Your task to perform on an android device: uninstall "eBay: The shopping marketplace" Image 0: 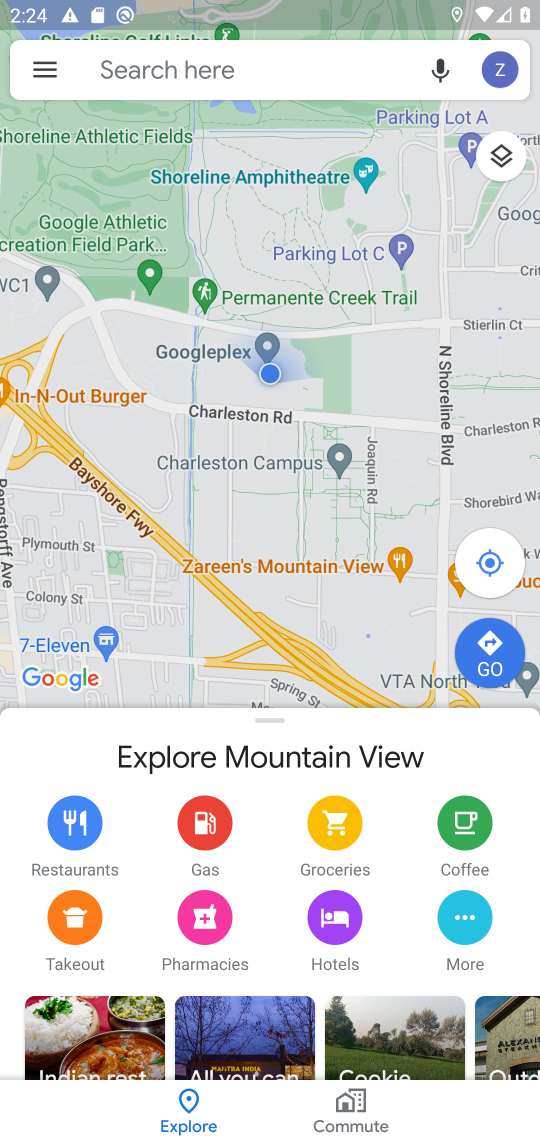
Step 0: press home button
Your task to perform on an android device: uninstall "eBay: The shopping marketplace" Image 1: 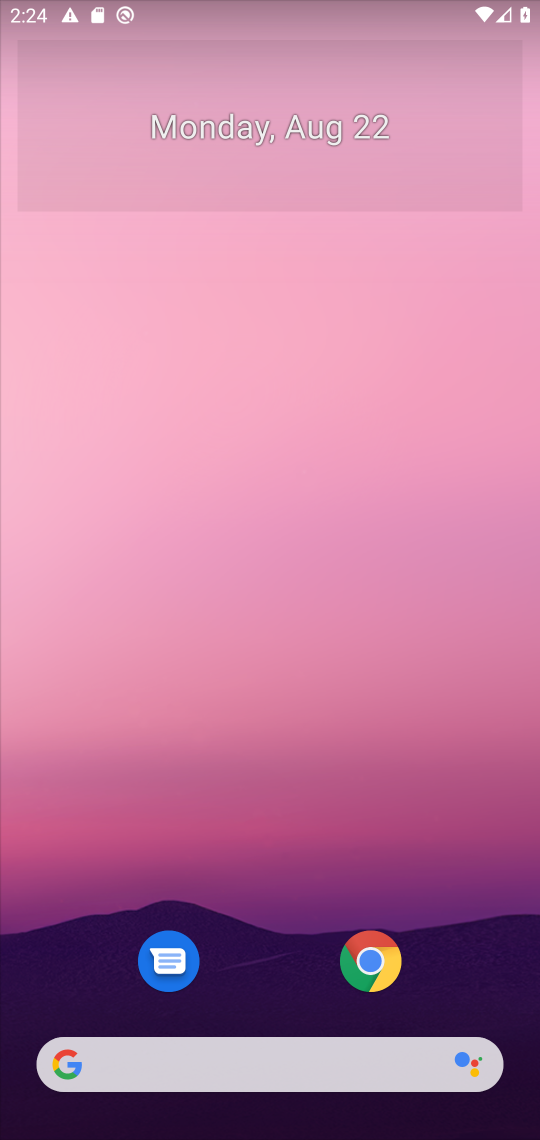
Step 1: drag from (476, 964) to (477, 104)
Your task to perform on an android device: uninstall "eBay: The shopping marketplace" Image 2: 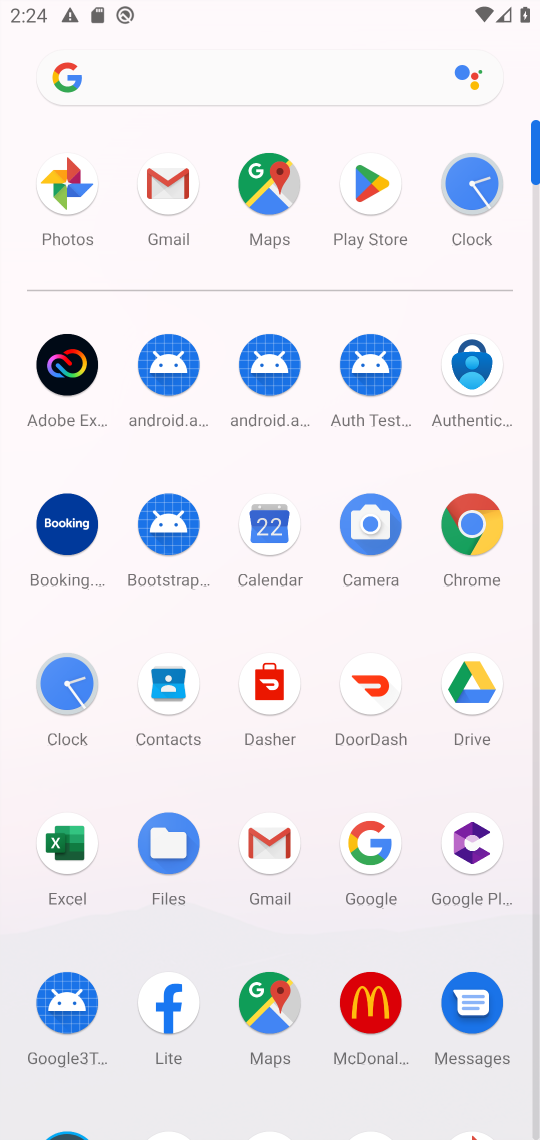
Step 2: click (368, 189)
Your task to perform on an android device: uninstall "eBay: The shopping marketplace" Image 3: 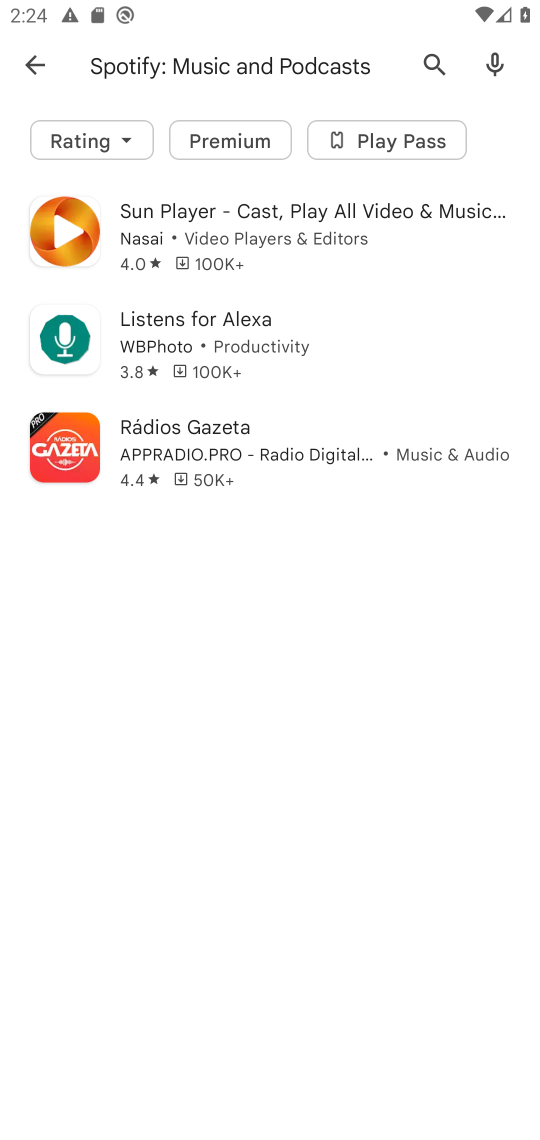
Step 3: type "eBay: The shopping marketplace"
Your task to perform on an android device: uninstall "eBay: The shopping marketplace" Image 4: 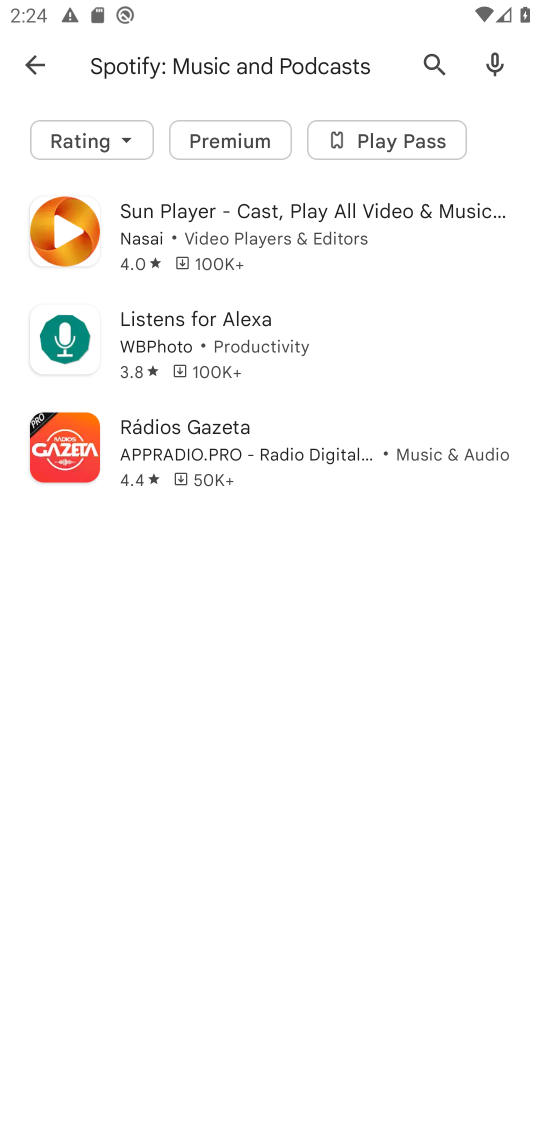
Step 4: press enter
Your task to perform on an android device: uninstall "eBay: The shopping marketplace" Image 5: 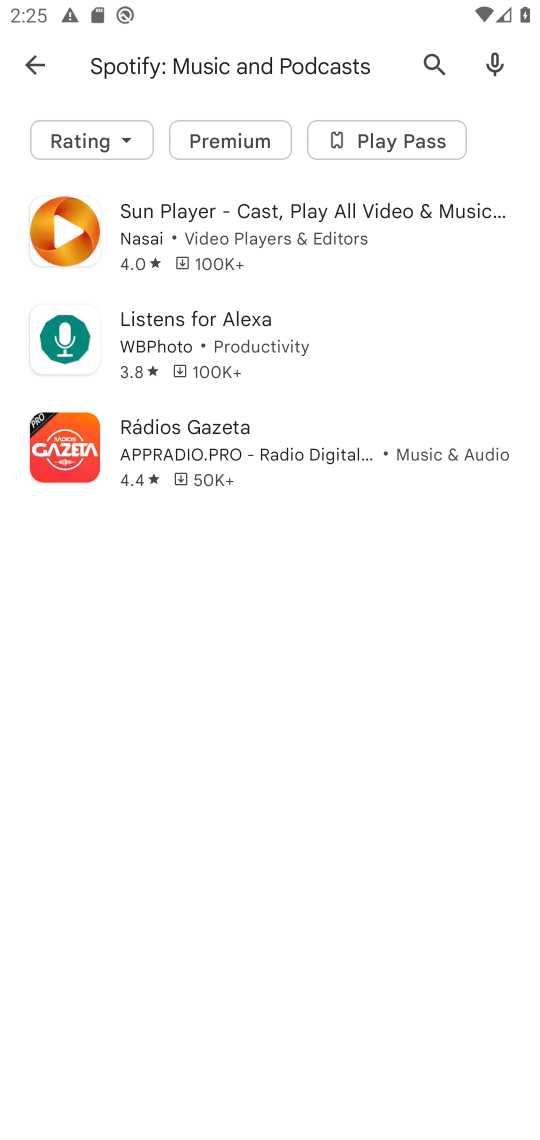
Step 5: press back button
Your task to perform on an android device: uninstall "eBay: The shopping marketplace" Image 6: 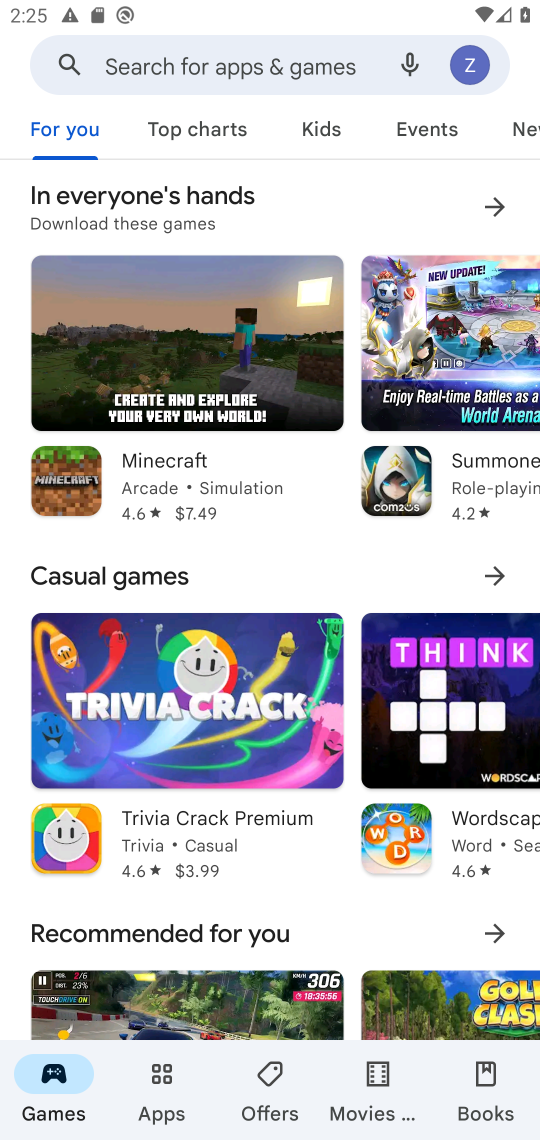
Step 6: click (268, 48)
Your task to perform on an android device: uninstall "eBay: The shopping marketplace" Image 7: 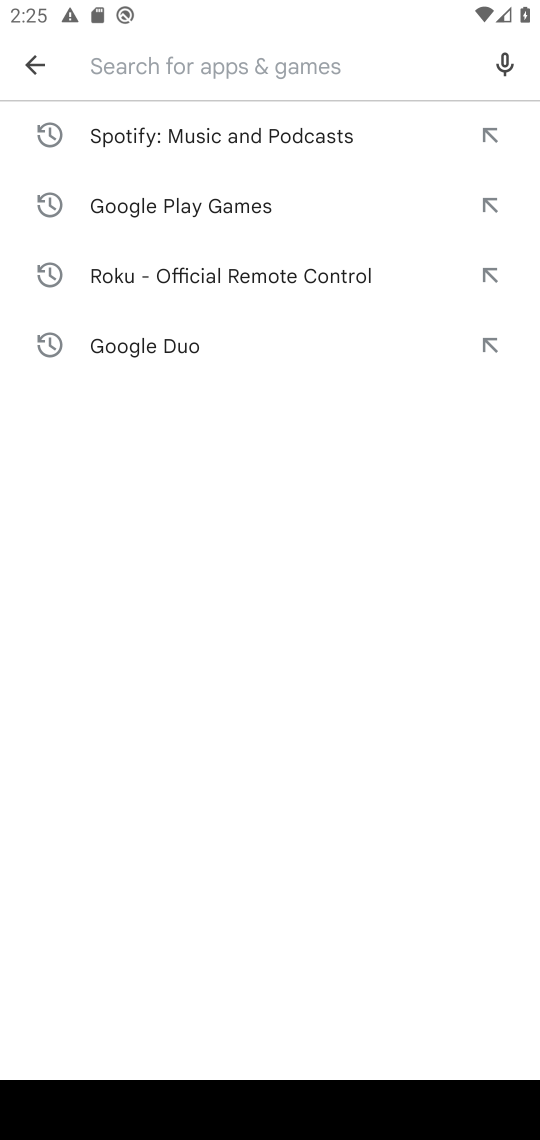
Step 7: type "eBay: The shopping marketplace"
Your task to perform on an android device: uninstall "eBay: The shopping marketplace" Image 8: 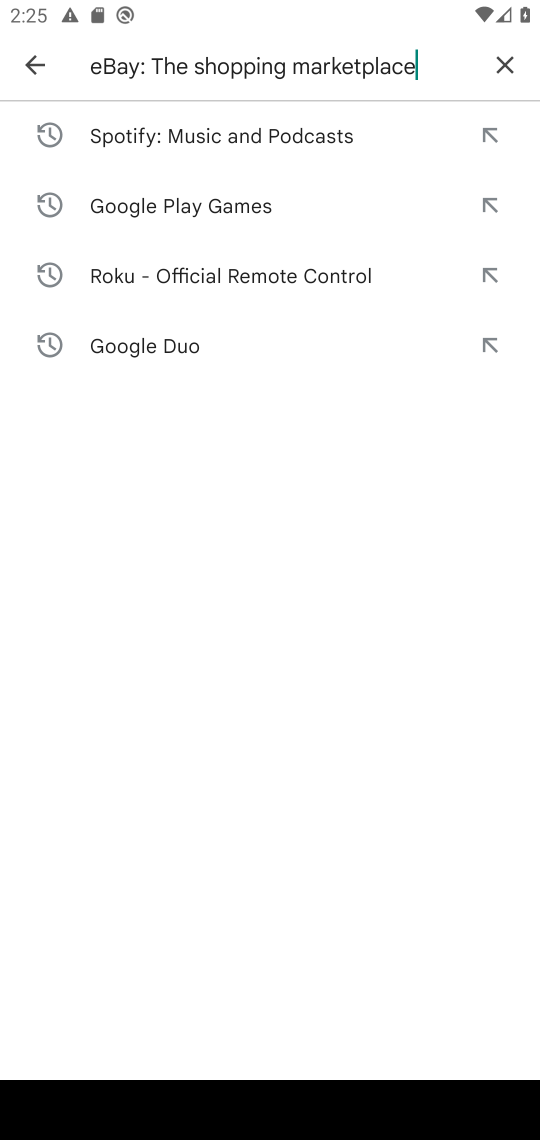
Step 8: press enter
Your task to perform on an android device: uninstall "eBay: The shopping marketplace" Image 9: 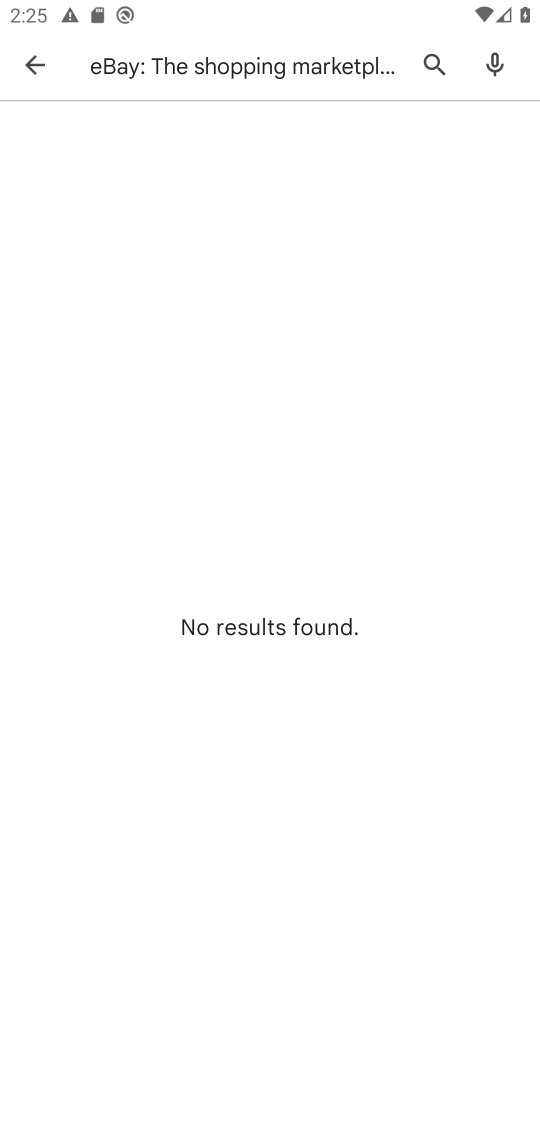
Step 9: task complete